Your task to perform on an android device: Go to sound settings Image 0: 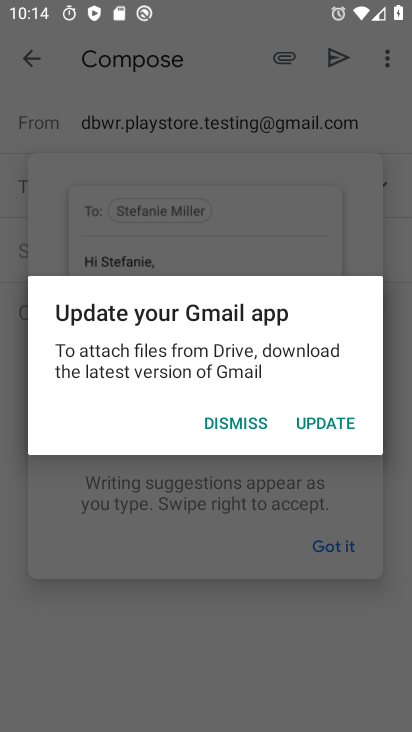
Step 0: press home button
Your task to perform on an android device: Go to sound settings Image 1: 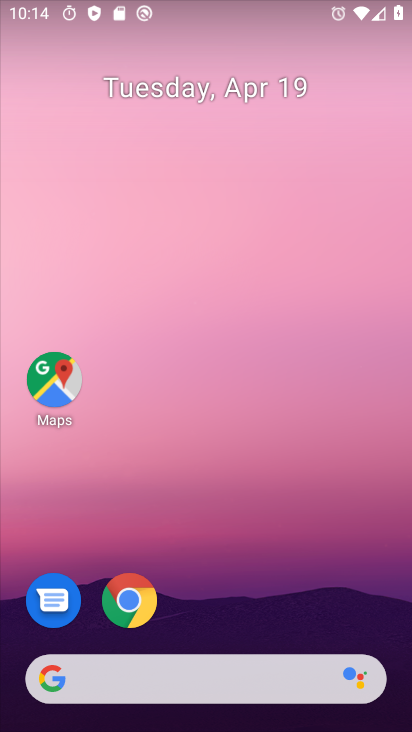
Step 1: drag from (229, 598) to (275, 0)
Your task to perform on an android device: Go to sound settings Image 2: 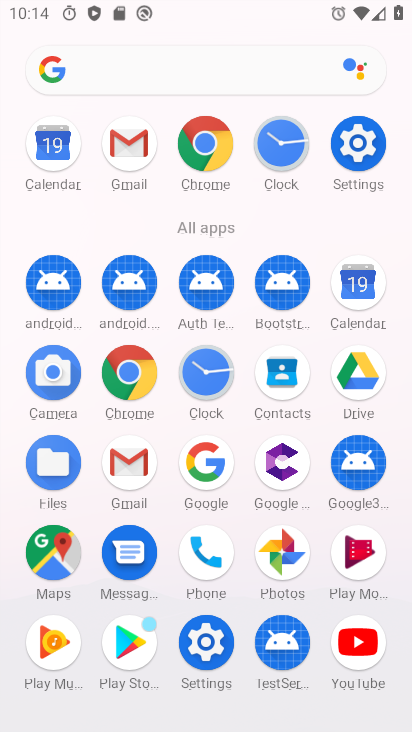
Step 2: click (220, 650)
Your task to perform on an android device: Go to sound settings Image 3: 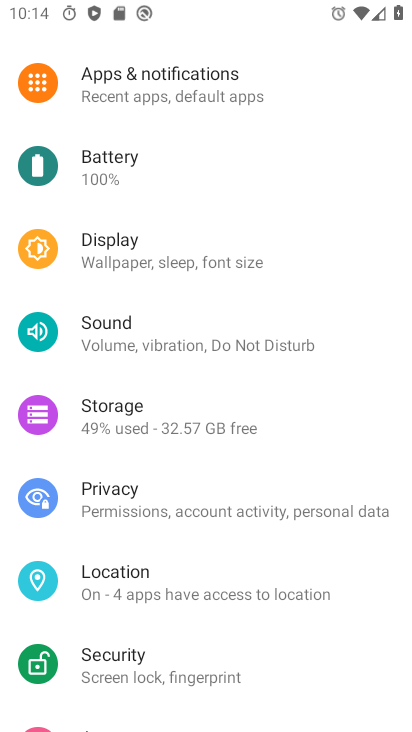
Step 3: click (191, 343)
Your task to perform on an android device: Go to sound settings Image 4: 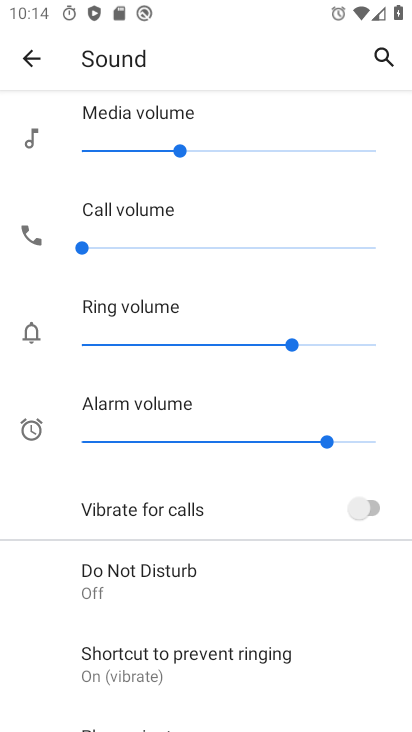
Step 4: task complete